Your task to perform on an android device: Play the last video I watched on Youtube Image 0: 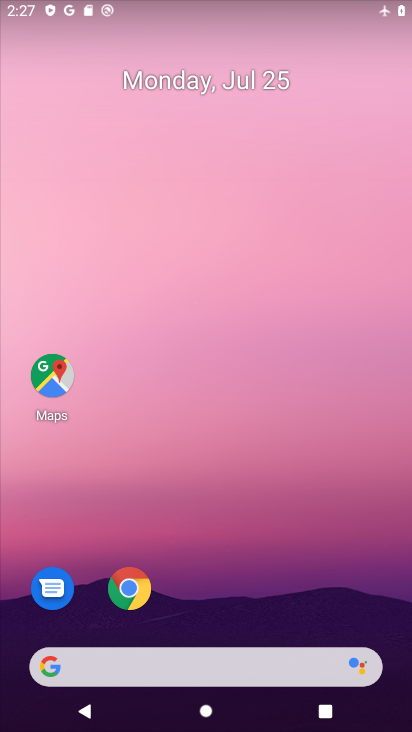
Step 0: press home button
Your task to perform on an android device: Play the last video I watched on Youtube Image 1: 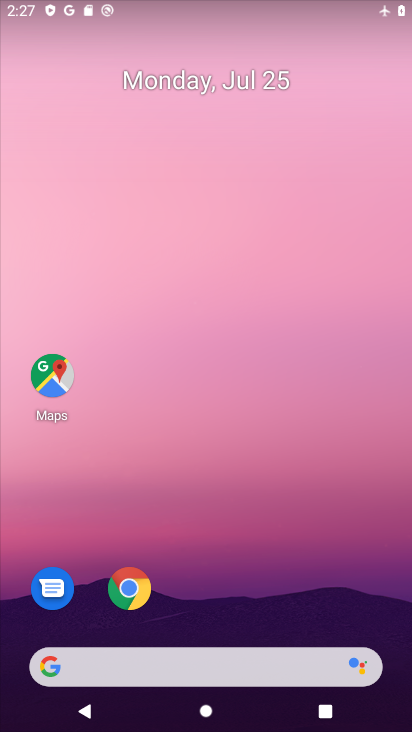
Step 1: drag from (223, 622) to (301, 0)
Your task to perform on an android device: Play the last video I watched on Youtube Image 2: 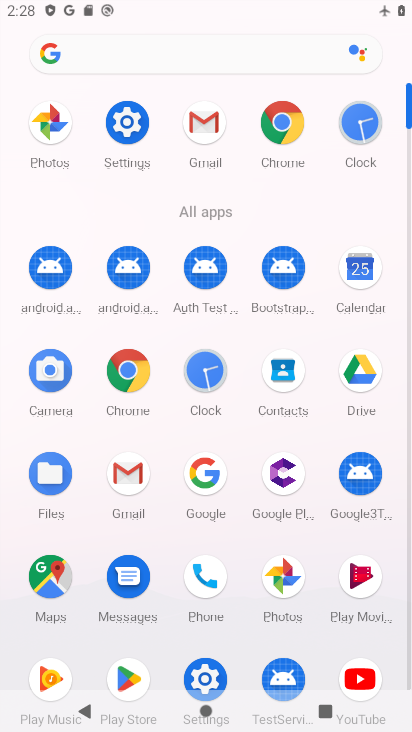
Step 2: click (360, 669)
Your task to perform on an android device: Play the last video I watched on Youtube Image 3: 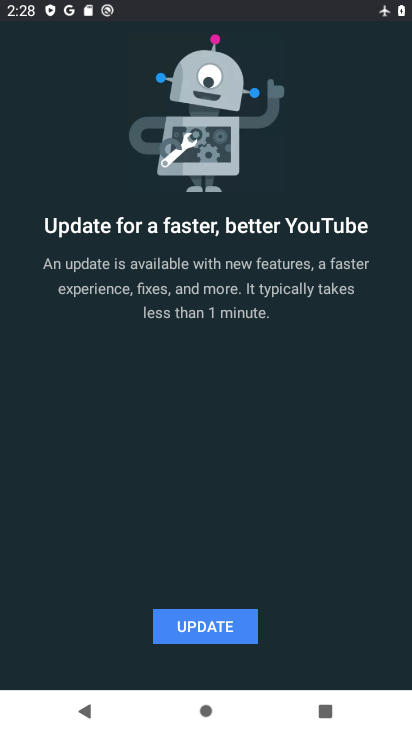
Step 3: click (204, 626)
Your task to perform on an android device: Play the last video I watched on Youtube Image 4: 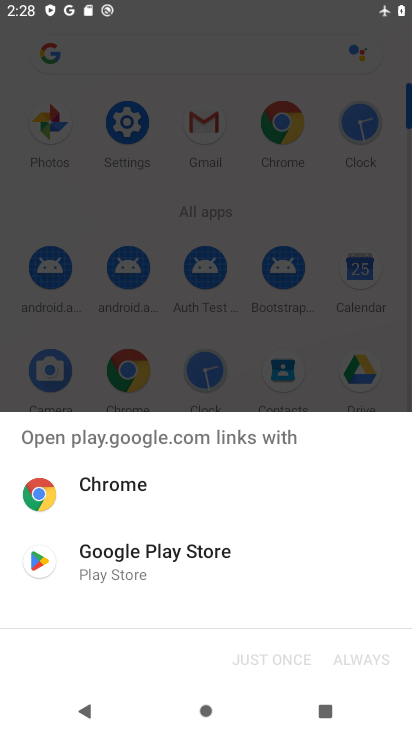
Step 4: click (119, 564)
Your task to perform on an android device: Play the last video I watched on Youtube Image 5: 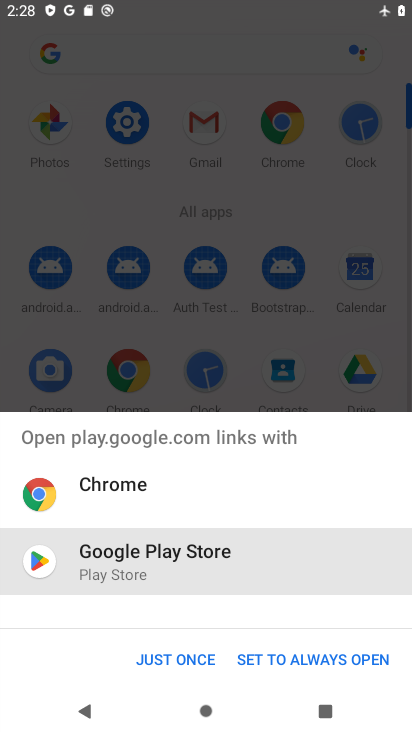
Step 5: click (175, 657)
Your task to perform on an android device: Play the last video I watched on Youtube Image 6: 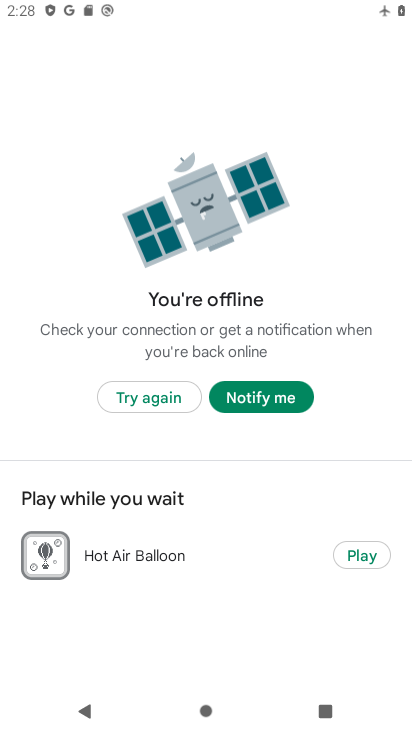
Step 6: task complete